Your task to perform on an android device: Open ESPN.com Image 0: 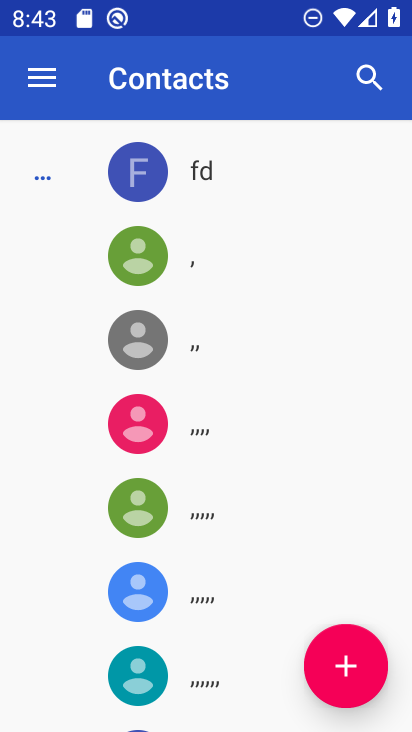
Step 0: press home button
Your task to perform on an android device: Open ESPN.com Image 1: 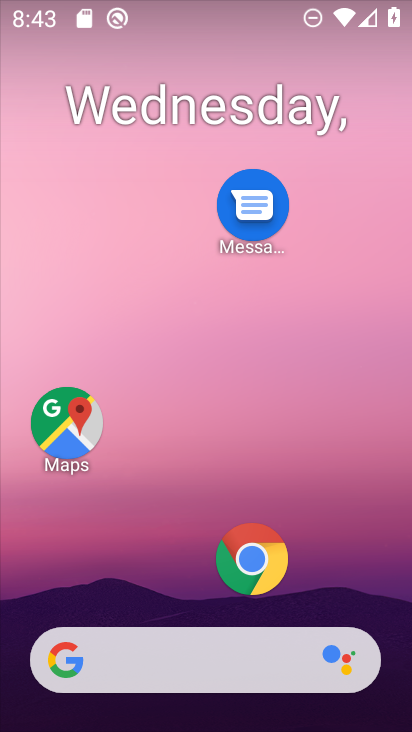
Step 1: drag from (294, 598) to (337, 65)
Your task to perform on an android device: Open ESPN.com Image 2: 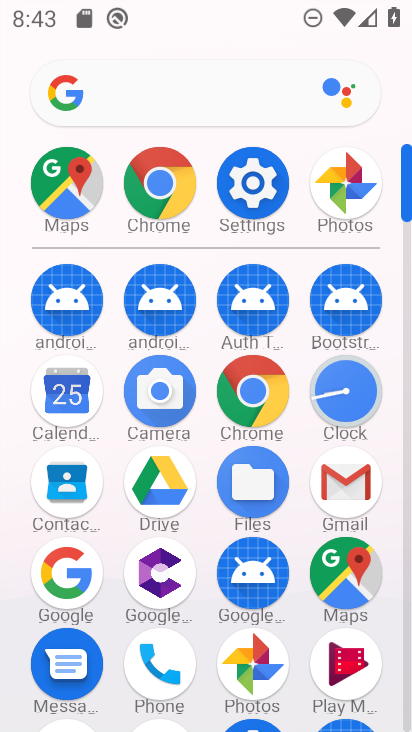
Step 2: click (163, 202)
Your task to perform on an android device: Open ESPN.com Image 3: 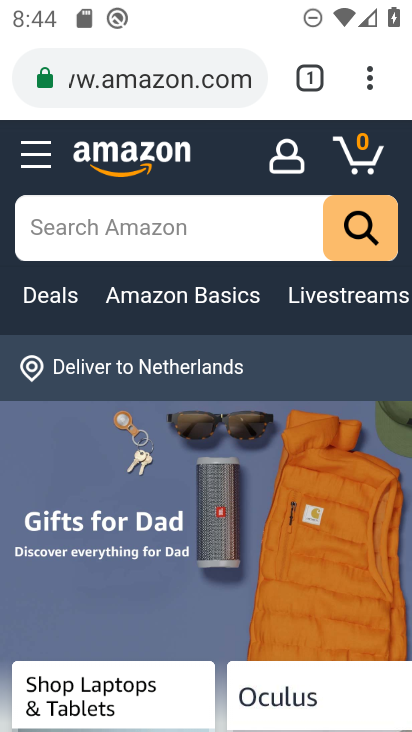
Step 3: click (178, 85)
Your task to perform on an android device: Open ESPN.com Image 4: 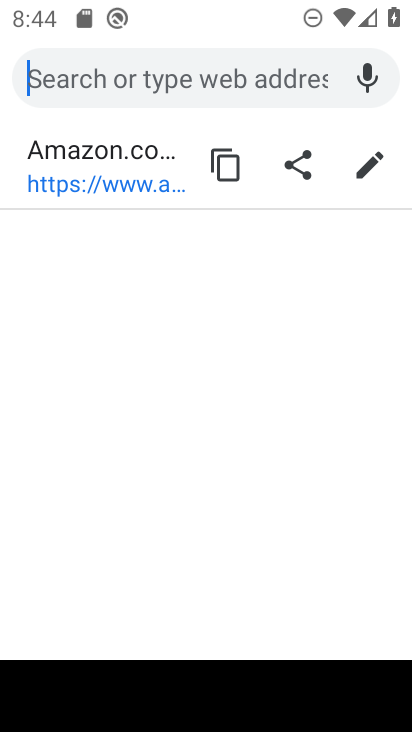
Step 4: type ""
Your task to perform on an android device: Open ESPN.com Image 5: 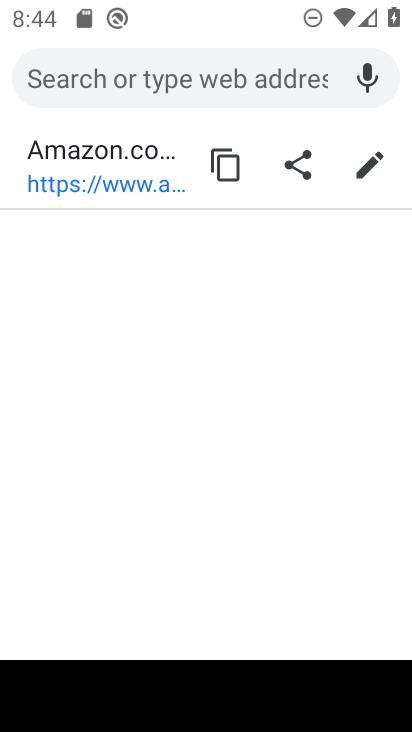
Step 5: type "espn"
Your task to perform on an android device: Open ESPN.com Image 6: 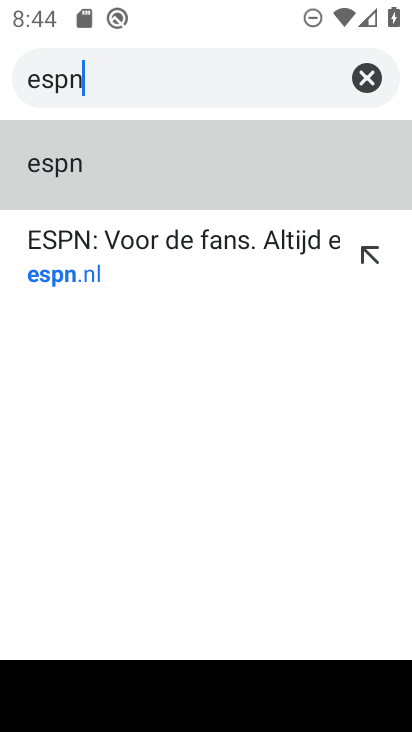
Step 6: click (284, 277)
Your task to perform on an android device: Open ESPN.com Image 7: 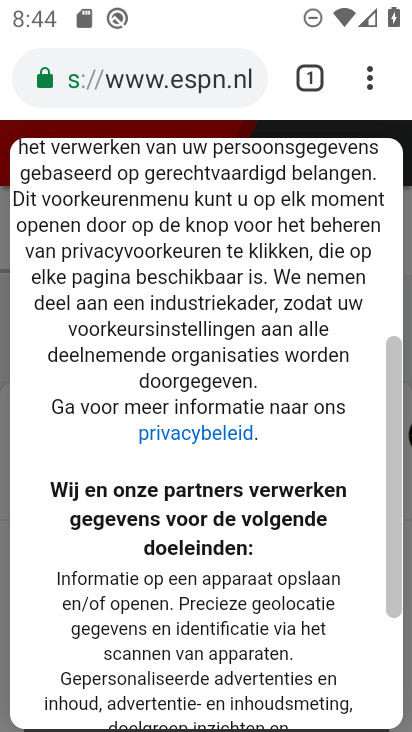
Step 7: task complete